Your task to perform on an android device: Open Amazon Image 0: 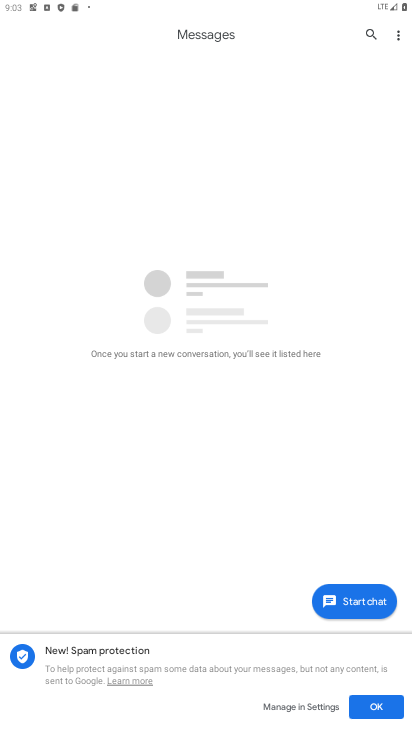
Step 0: press home button
Your task to perform on an android device: Open Amazon Image 1: 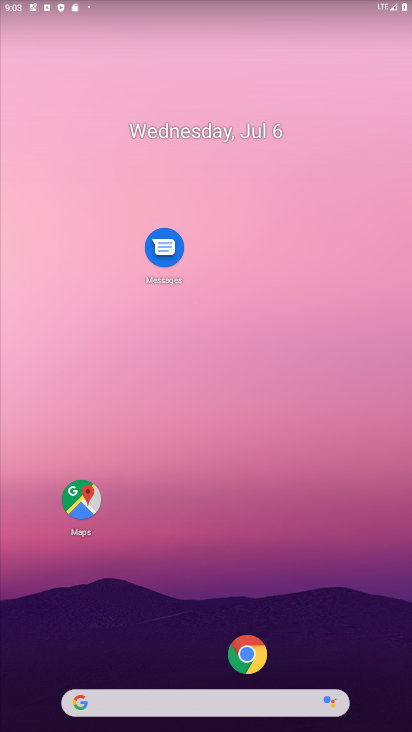
Step 1: click (253, 647)
Your task to perform on an android device: Open Amazon Image 2: 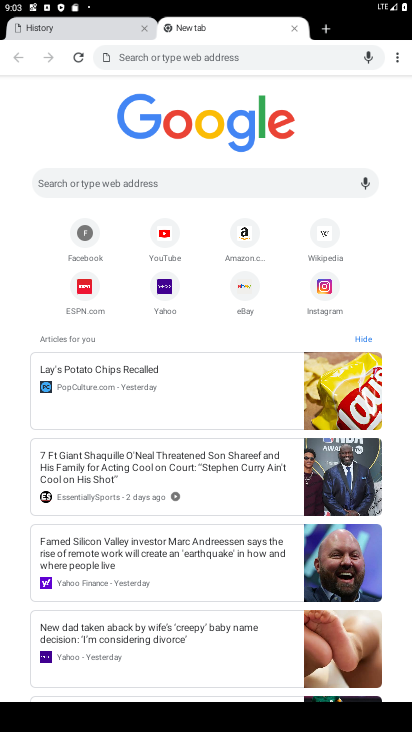
Step 2: click (240, 233)
Your task to perform on an android device: Open Amazon Image 3: 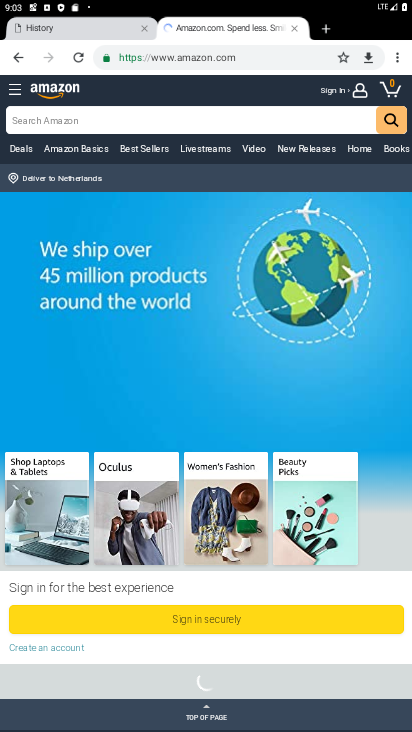
Step 3: task complete